Your task to perform on an android device: Open privacy settings Image 0: 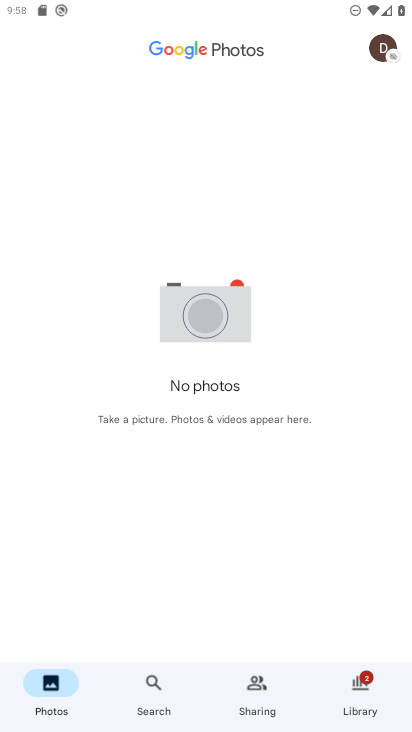
Step 0: press home button
Your task to perform on an android device: Open privacy settings Image 1: 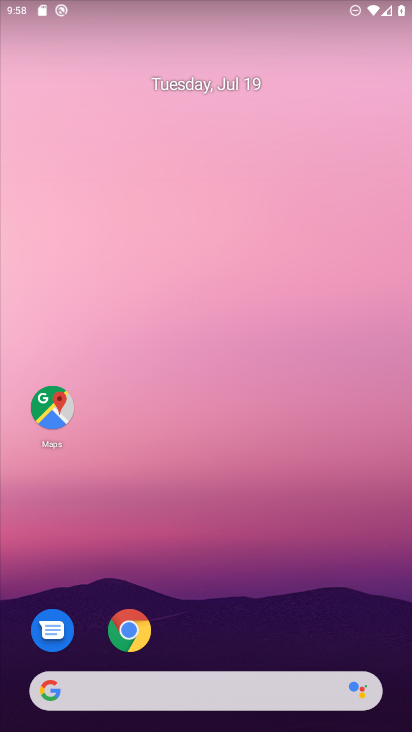
Step 1: drag from (202, 658) to (318, 35)
Your task to perform on an android device: Open privacy settings Image 2: 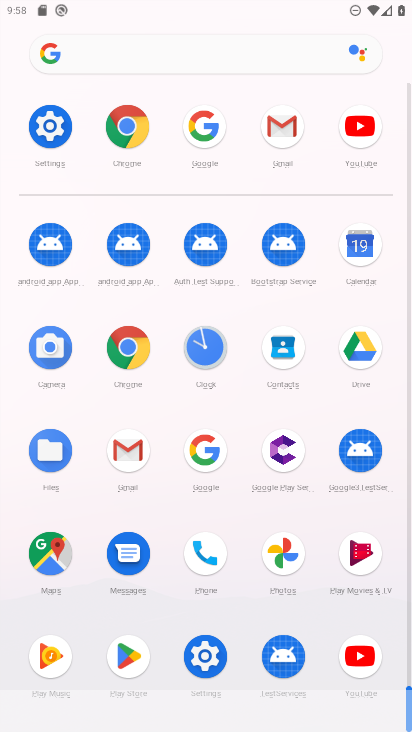
Step 2: click (61, 139)
Your task to perform on an android device: Open privacy settings Image 3: 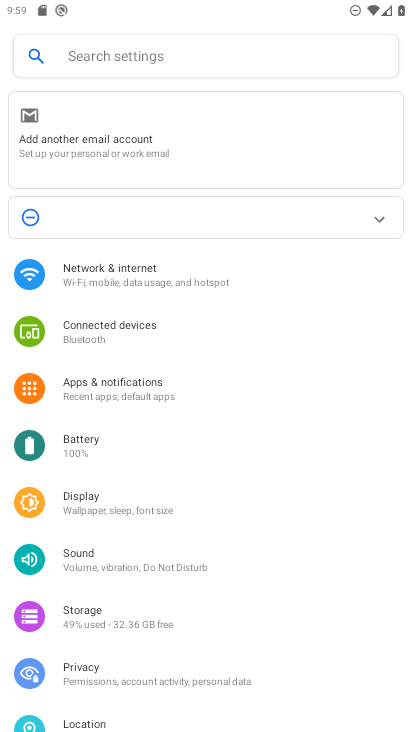
Step 3: drag from (157, 539) to (163, 440)
Your task to perform on an android device: Open privacy settings Image 4: 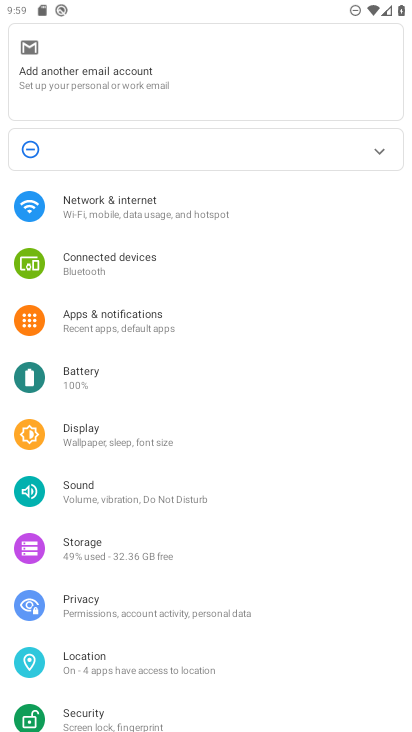
Step 4: click (88, 602)
Your task to perform on an android device: Open privacy settings Image 5: 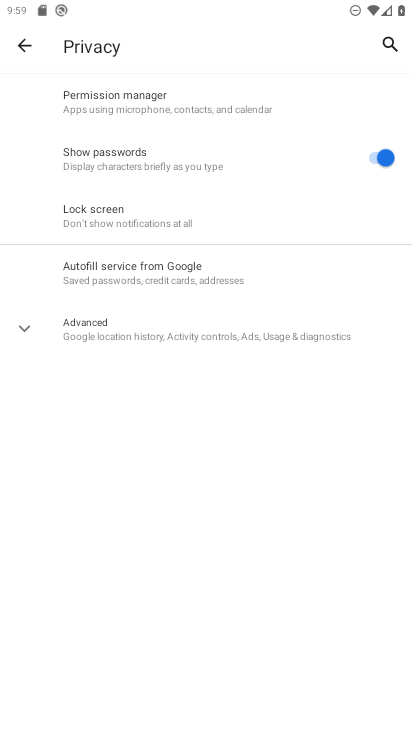
Step 5: task complete